Your task to perform on an android device: Open Google Maps and go to "Timeline" Image 0: 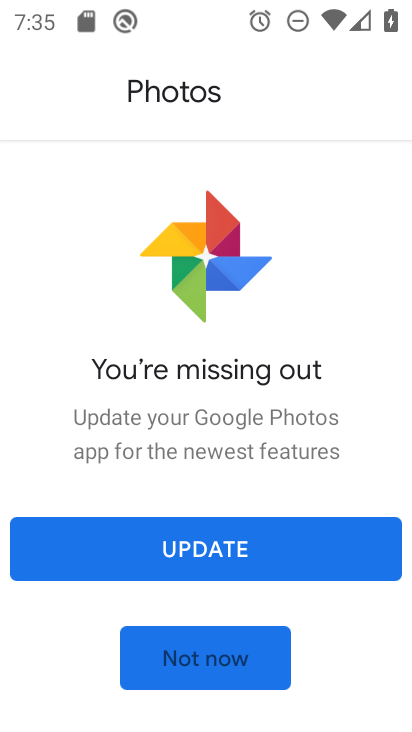
Step 0: press home button
Your task to perform on an android device: Open Google Maps and go to "Timeline" Image 1: 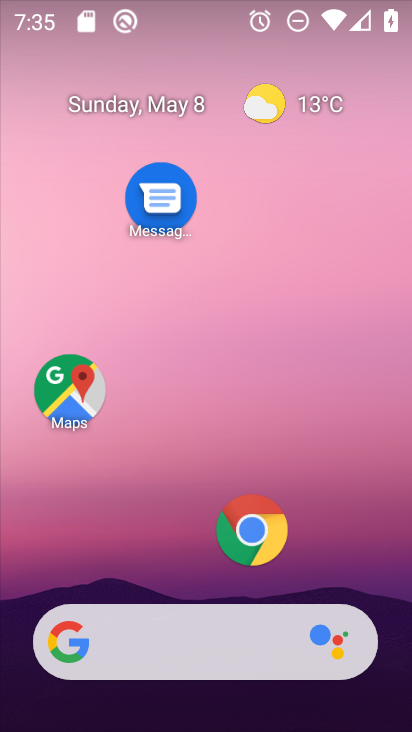
Step 1: click (73, 387)
Your task to perform on an android device: Open Google Maps and go to "Timeline" Image 2: 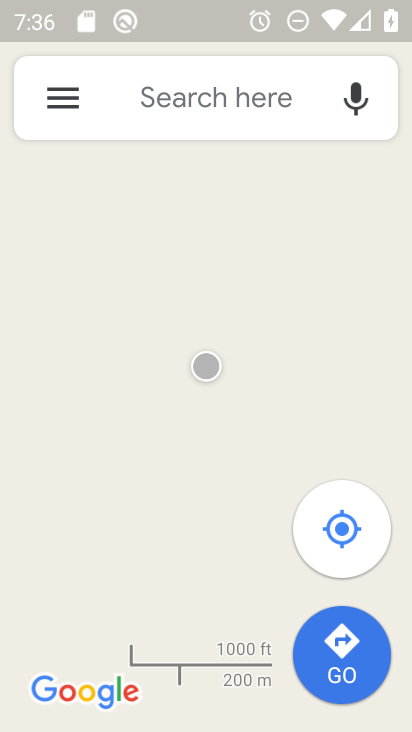
Step 2: click (52, 92)
Your task to perform on an android device: Open Google Maps and go to "Timeline" Image 3: 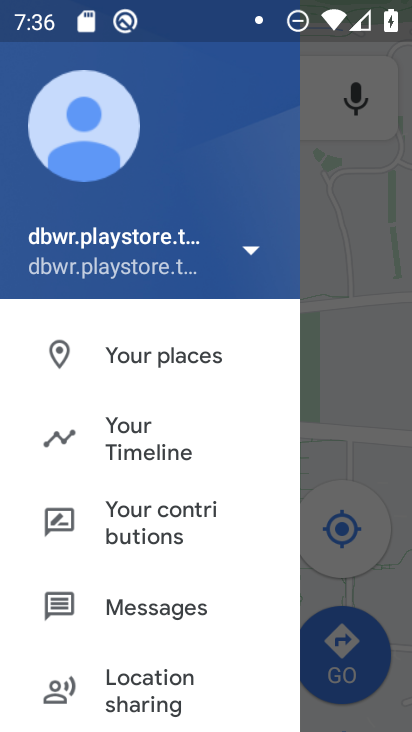
Step 3: click (134, 447)
Your task to perform on an android device: Open Google Maps and go to "Timeline" Image 4: 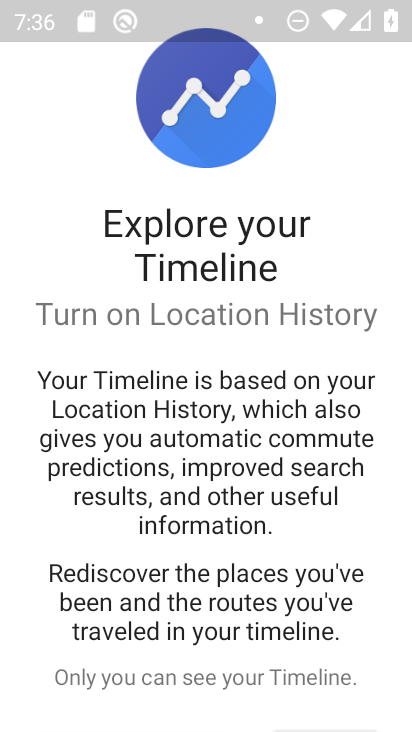
Step 4: drag from (185, 621) to (212, 350)
Your task to perform on an android device: Open Google Maps and go to "Timeline" Image 5: 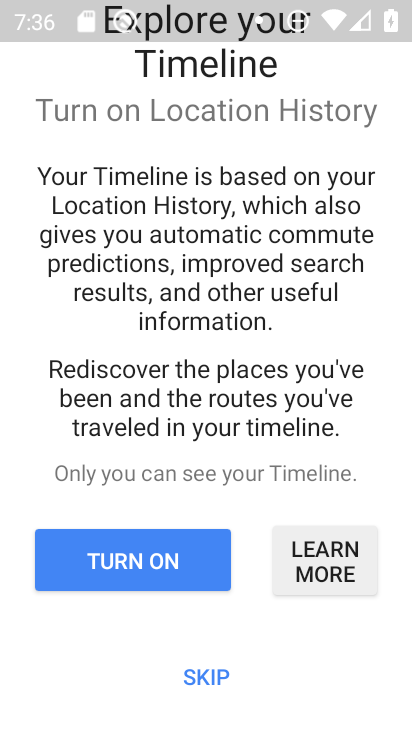
Step 5: click (132, 561)
Your task to perform on an android device: Open Google Maps and go to "Timeline" Image 6: 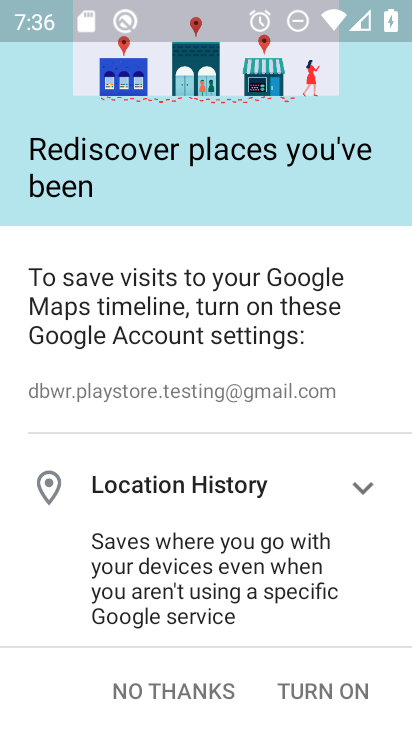
Step 6: click (297, 705)
Your task to perform on an android device: Open Google Maps and go to "Timeline" Image 7: 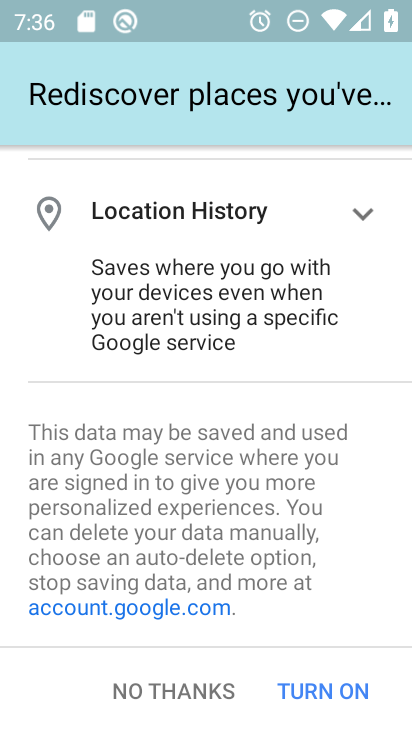
Step 7: click (334, 694)
Your task to perform on an android device: Open Google Maps and go to "Timeline" Image 8: 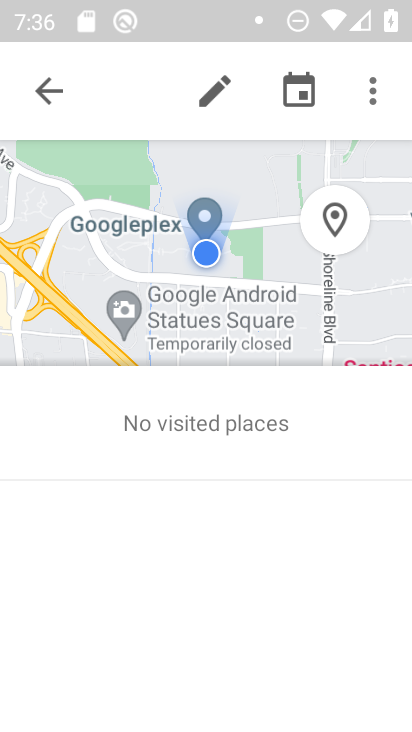
Step 8: task complete